Your task to perform on an android device: Do I have any events this weekend? Image 0: 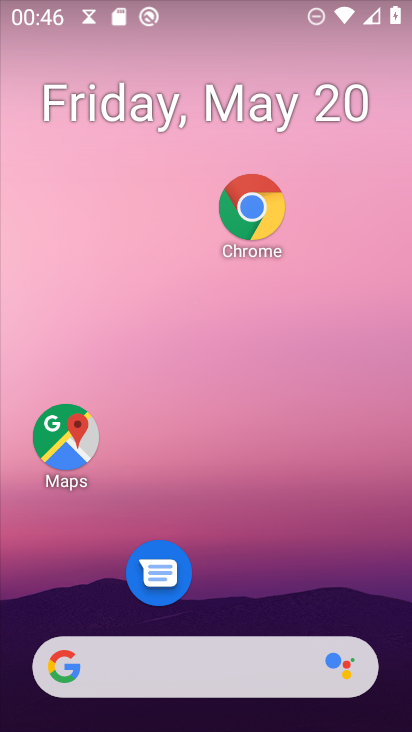
Step 0: drag from (247, 574) to (252, 0)
Your task to perform on an android device: Do I have any events this weekend? Image 1: 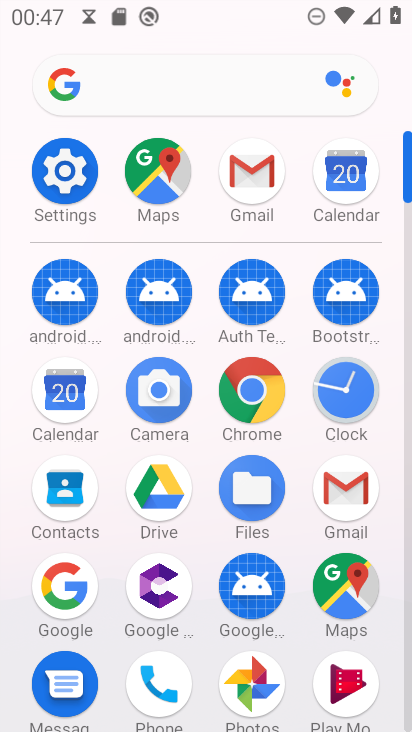
Step 1: click (64, 380)
Your task to perform on an android device: Do I have any events this weekend? Image 2: 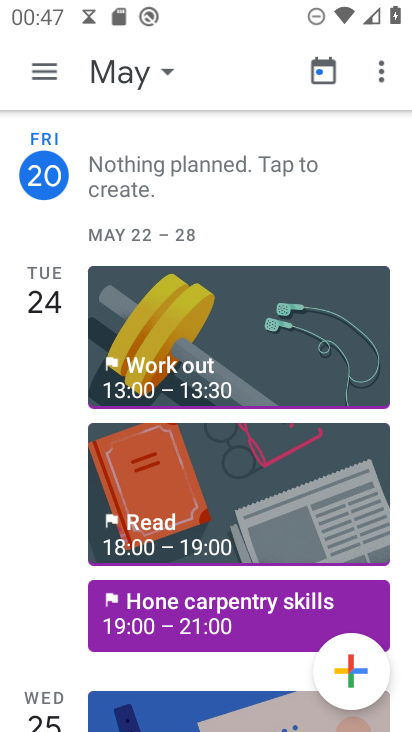
Step 2: click (128, 90)
Your task to perform on an android device: Do I have any events this weekend? Image 3: 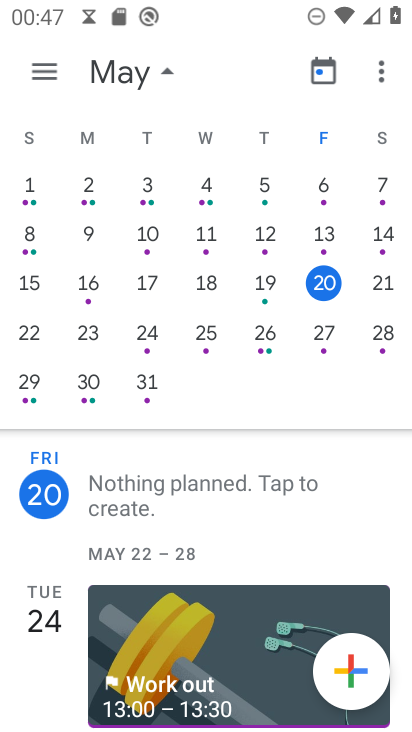
Step 3: click (366, 282)
Your task to perform on an android device: Do I have any events this weekend? Image 4: 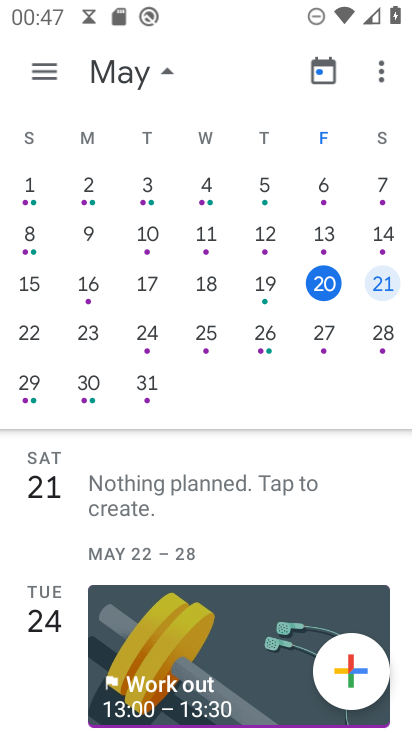
Step 4: task complete